Your task to perform on an android device: open device folders in google photos Image 0: 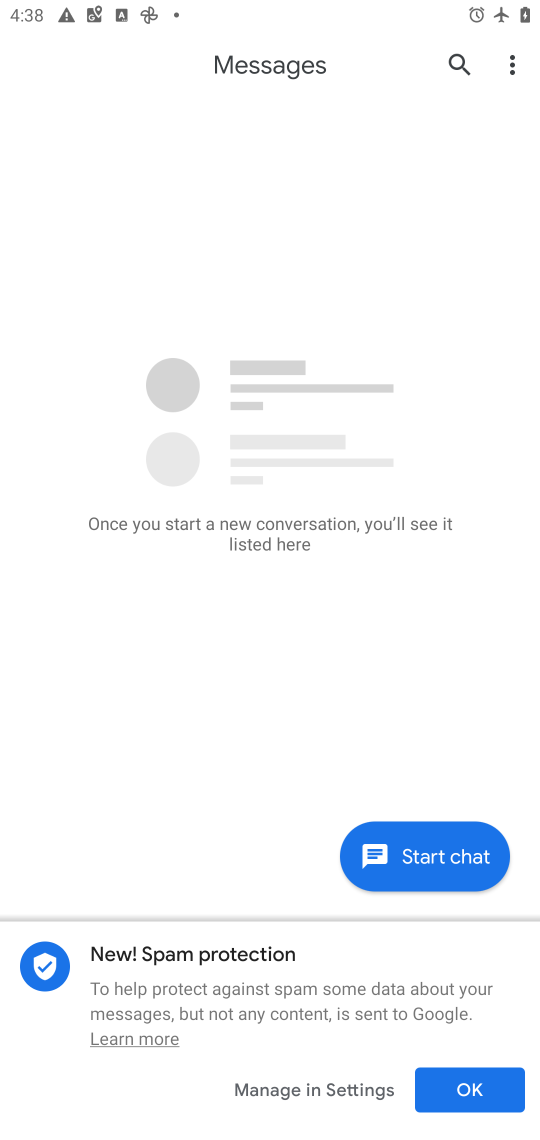
Step 0: press home button
Your task to perform on an android device: open device folders in google photos Image 1: 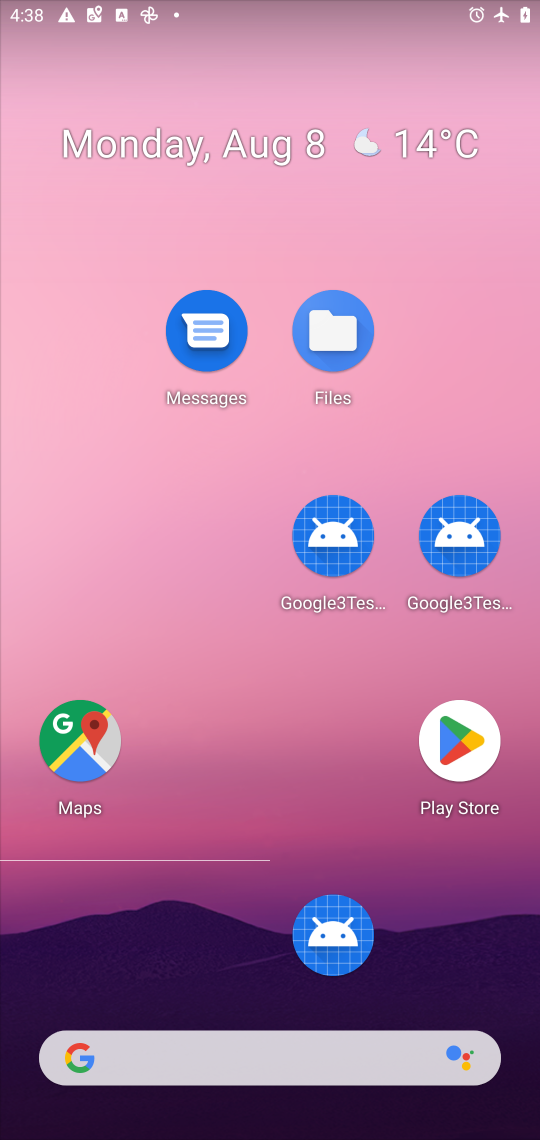
Step 1: drag from (409, 1071) to (381, 176)
Your task to perform on an android device: open device folders in google photos Image 2: 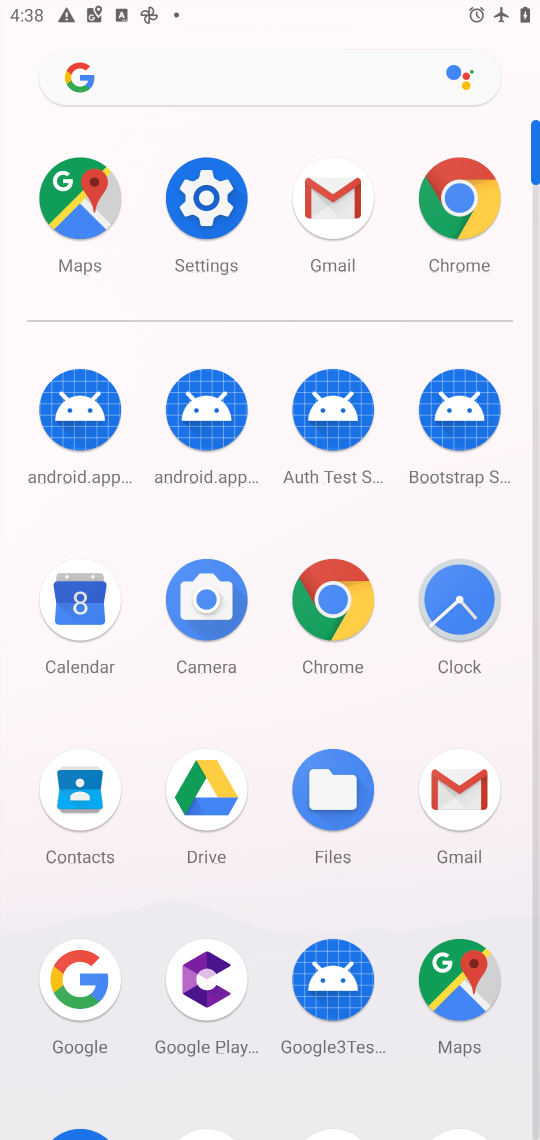
Step 2: drag from (407, 934) to (419, 350)
Your task to perform on an android device: open device folders in google photos Image 3: 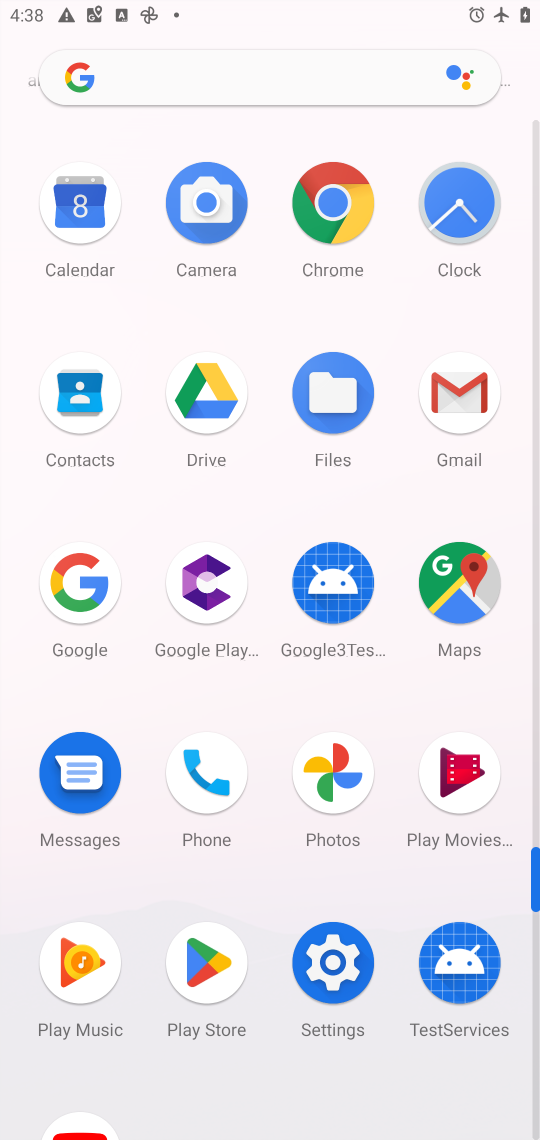
Step 3: click (339, 765)
Your task to perform on an android device: open device folders in google photos Image 4: 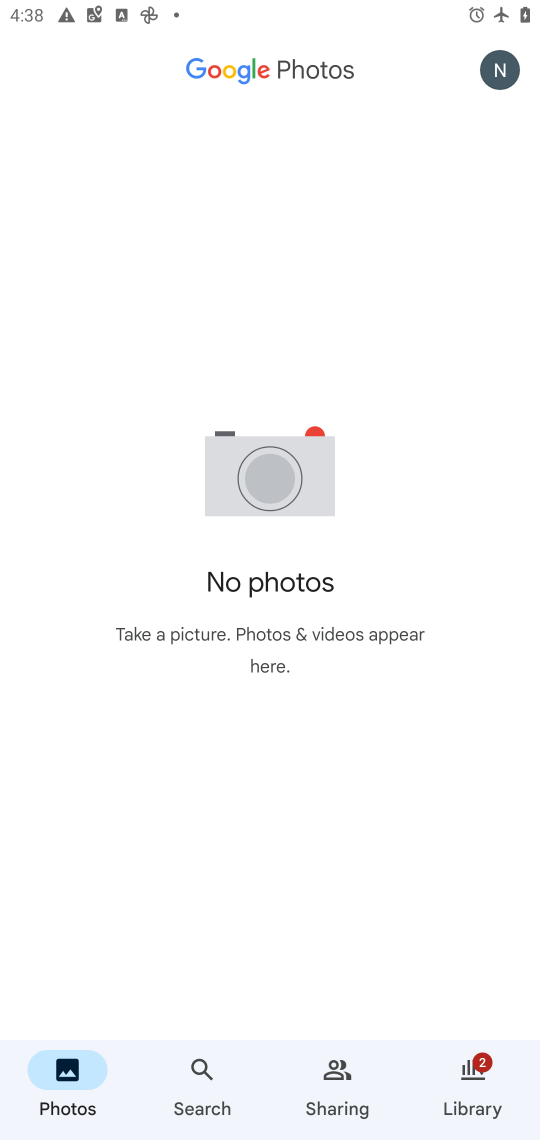
Step 4: click (495, 72)
Your task to perform on an android device: open device folders in google photos Image 5: 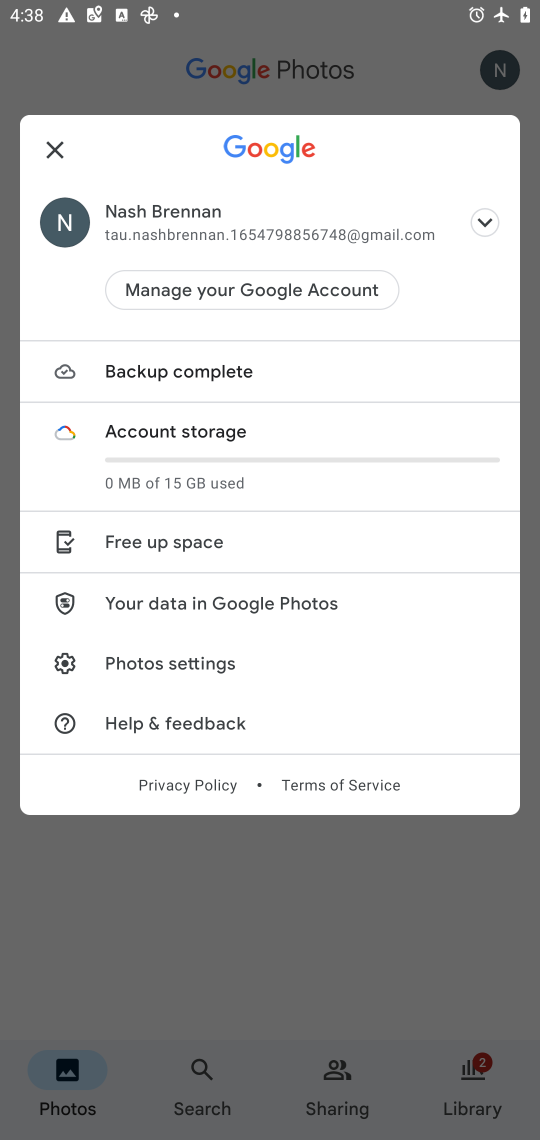
Step 5: click (117, 643)
Your task to perform on an android device: open device folders in google photos Image 6: 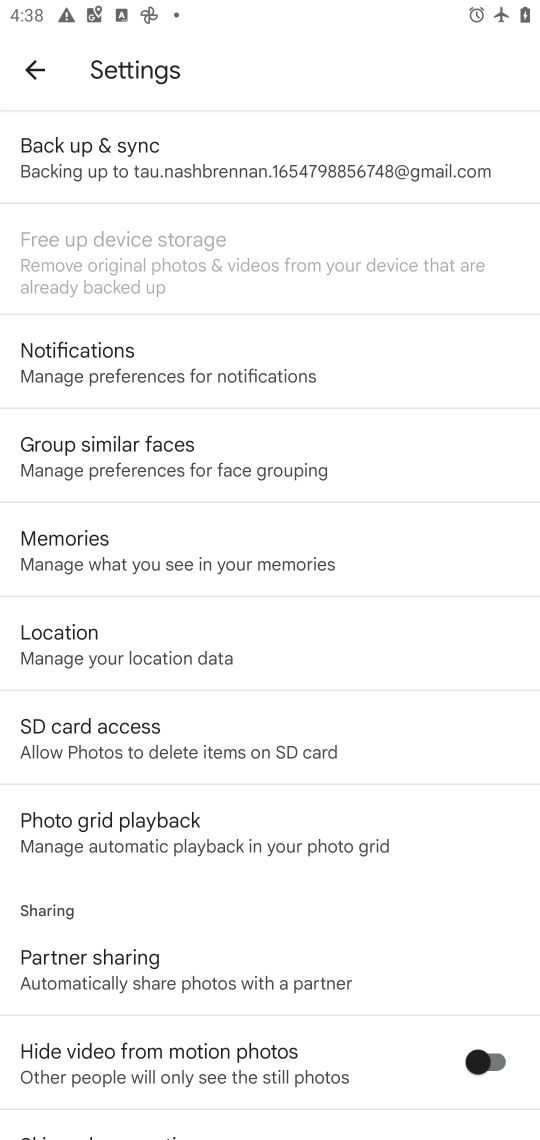
Step 6: click (117, 643)
Your task to perform on an android device: open device folders in google photos Image 7: 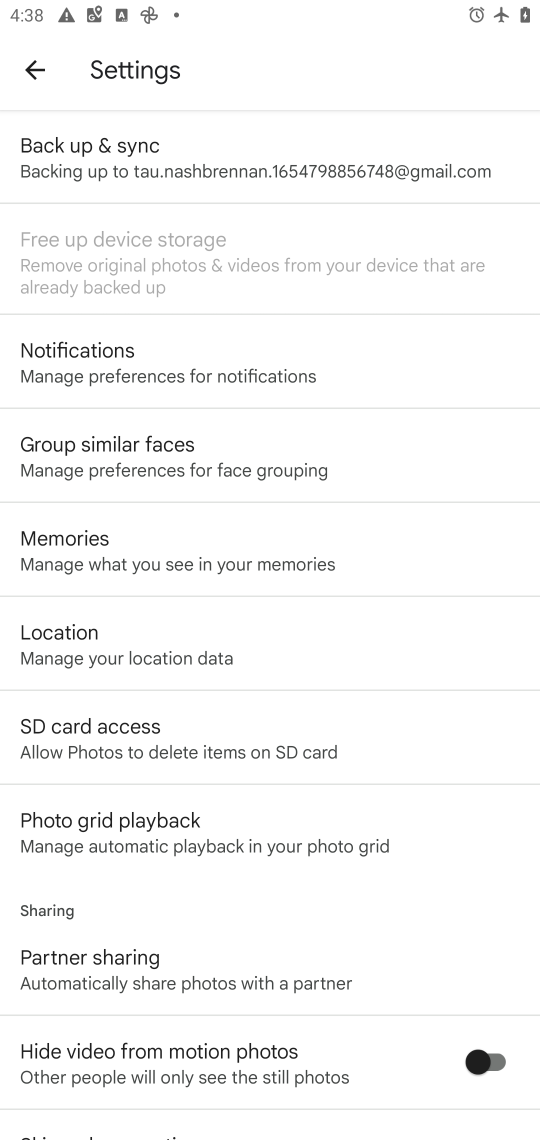
Step 7: click (117, 643)
Your task to perform on an android device: open device folders in google photos Image 8: 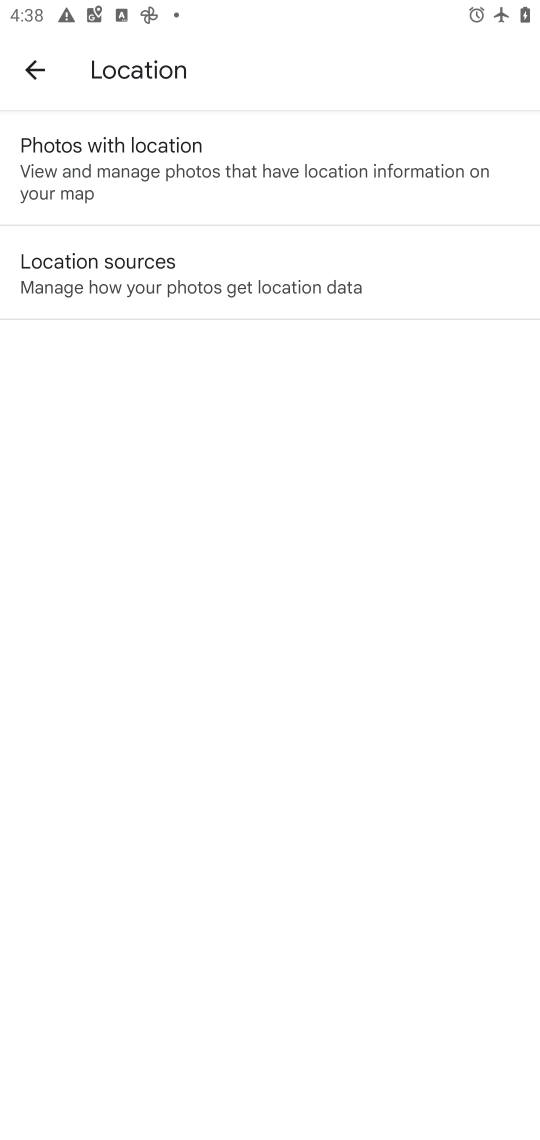
Step 8: task complete